Your task to perform on an android device: Go to ESPN.com Image 0: 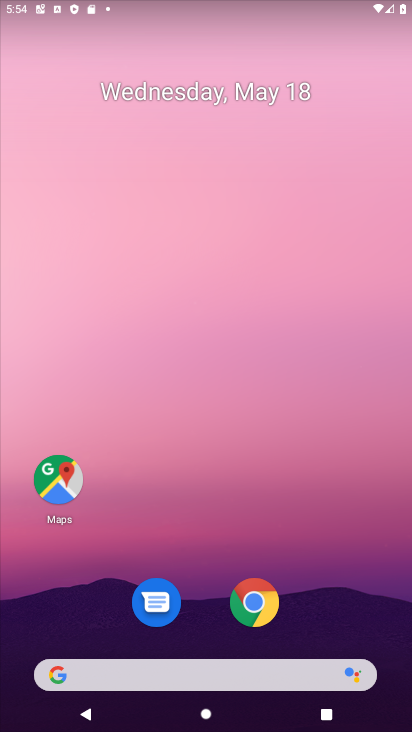
Step 0: drag from (243, 671) to (217, 148)
Your task to perform on an android device: Go to ESPN.com Image 1: 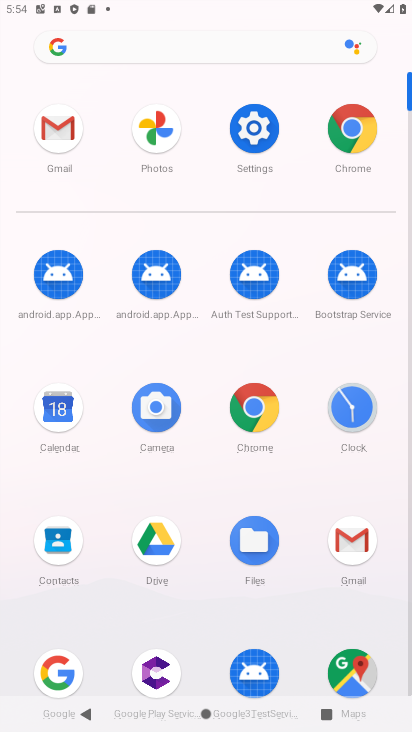
Step 1: click (252, 423)
Your task to perform on an android device: Go to ESPN.com Image 2: 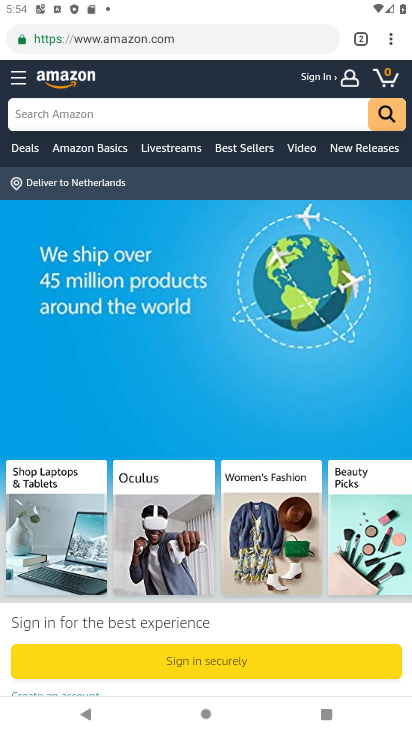
Step 2: click (185, 56)
Your task to perform on an android device: Go to ESPN.com Image 3: 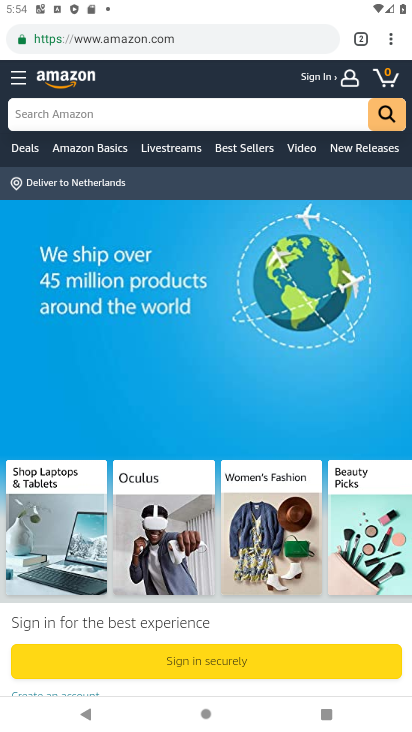
Step 3: click (186, 51)
Your task to perform on an android device: Go to ESPN.com Image 4: 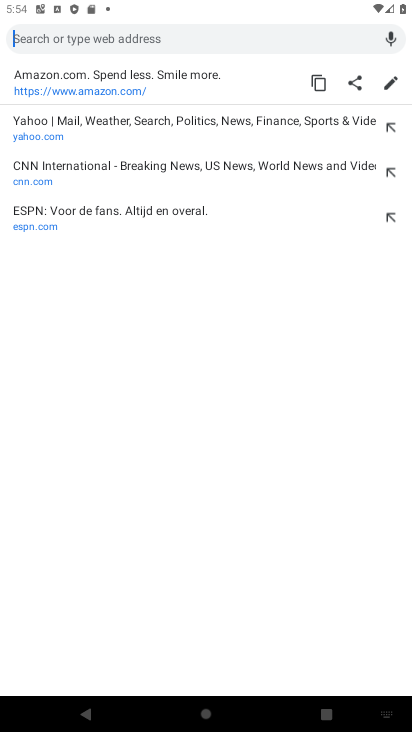
Step 4: click (104, 226)
Your task to perform on an android device: Go to ESPN.com Image 5: 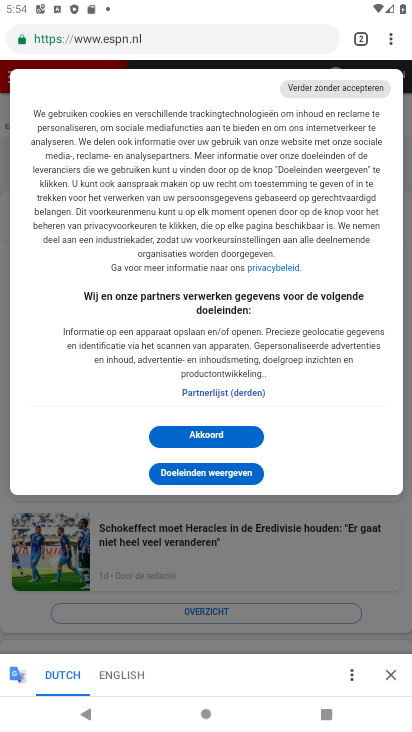
Step 5: task complete